Your task to perform on an android device: Go to Google maps Image 0: 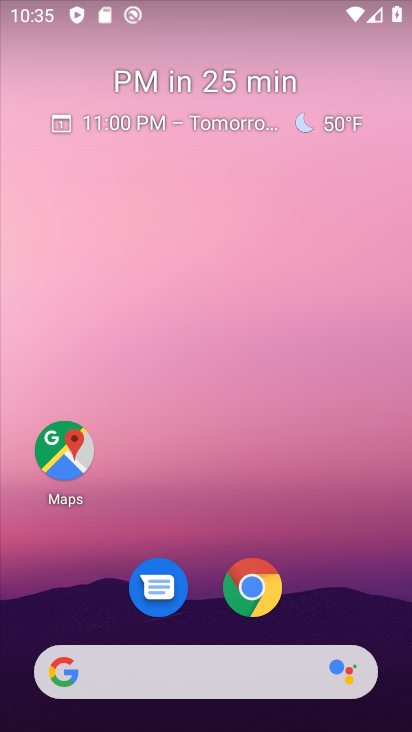
Step 0: click (74, 458)
Your task to perform on an android device: Go to Google maps Image 1: 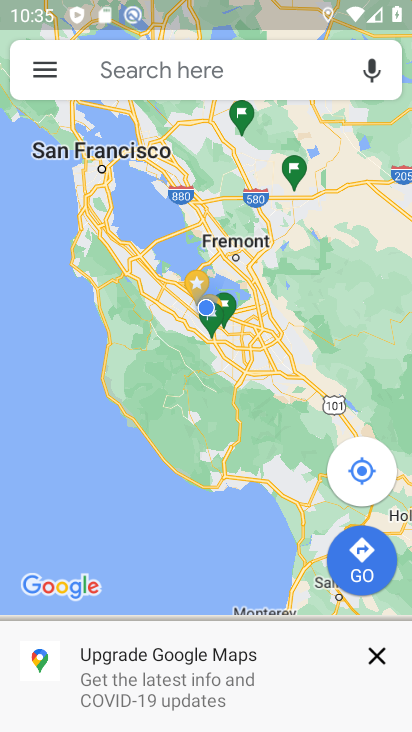
Step 1: task complete